Your task to perform on an android device: Open Android settings Image 0: 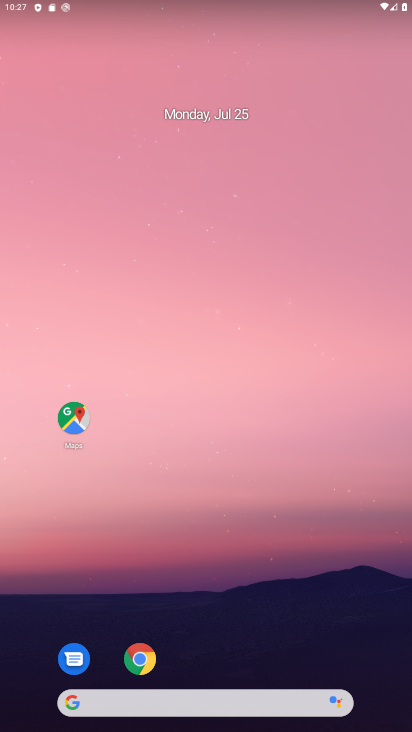
Step 0: click (196, 122)
Your task to perform on an android device: Open Android settings Image 1: 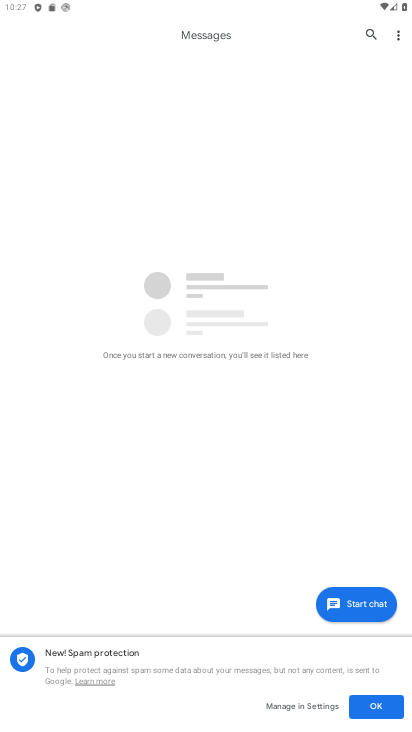
Step 1: press home button
Your task to perform on an android device: Open Android settings Image 2: 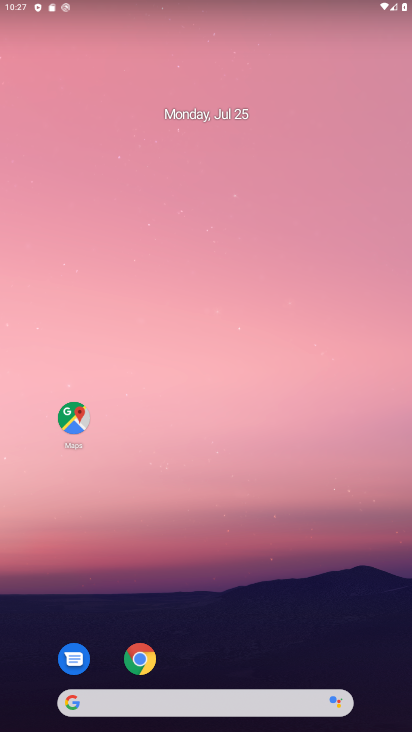
Step 2: drag from (224, 674) to (201, 136)
Your task to perform on an android device: Open Android settings Image 3: 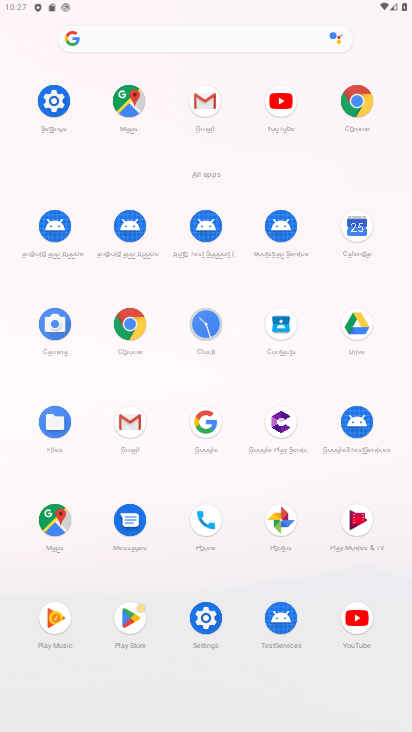
Step 3: click (190, 610)
Your task to perform on an android device: Open Android settings Image 4: 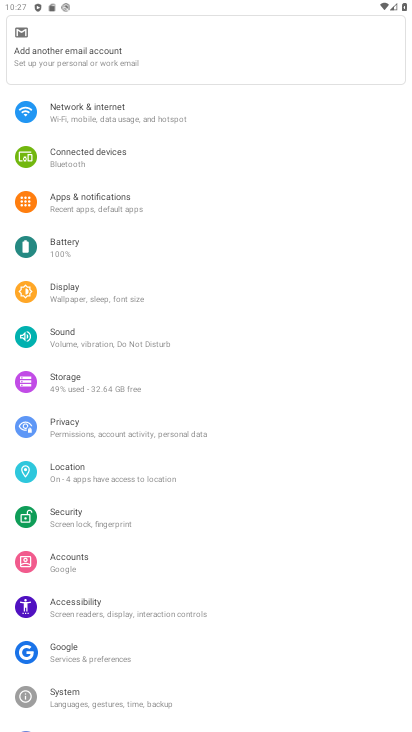
Step 4: task complete